Your task to perform on an android device: Go to privacy settings Image 0: 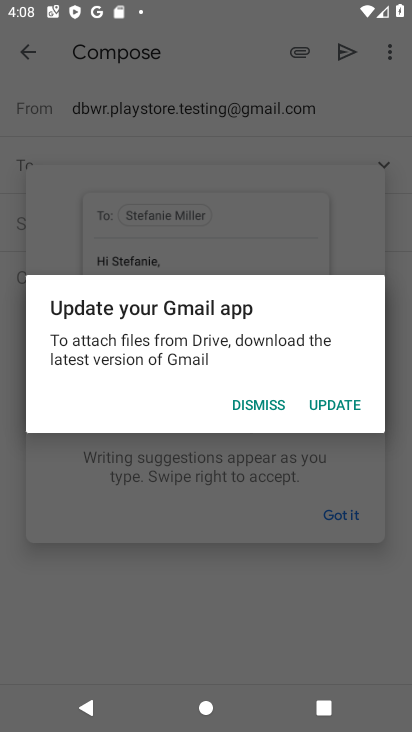
Step 0: press back button
Your task to perform on an android device: Go to privacy settings Image 1: 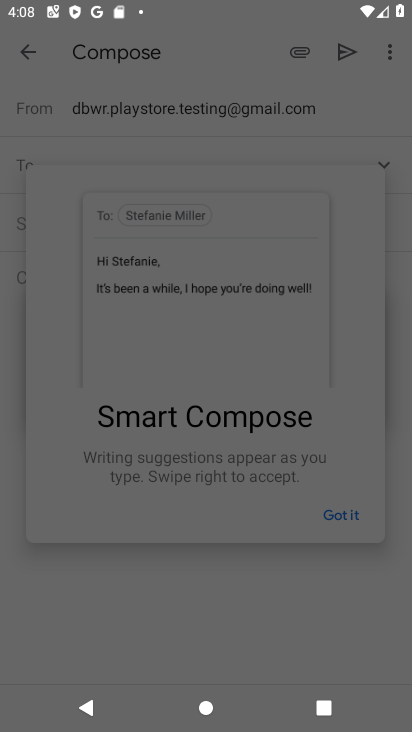
Step 1: press home button
Your task to perform on an android device: Go to privacy settings Image 2: 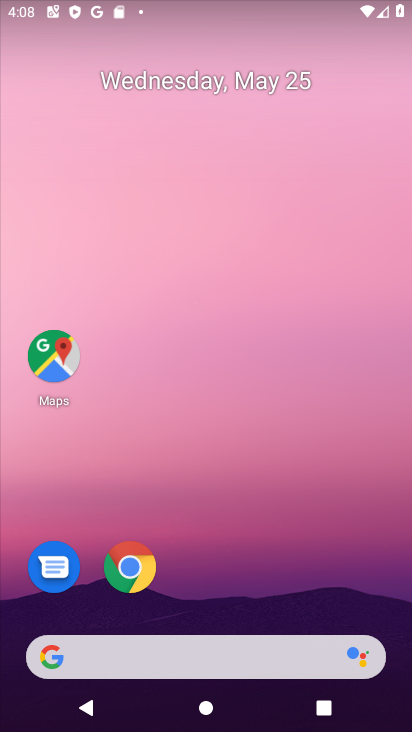
Step 2: drag from (308, 556) to (235, 14)
Your task to perform on an android device: Go to privacy settings Image 3: 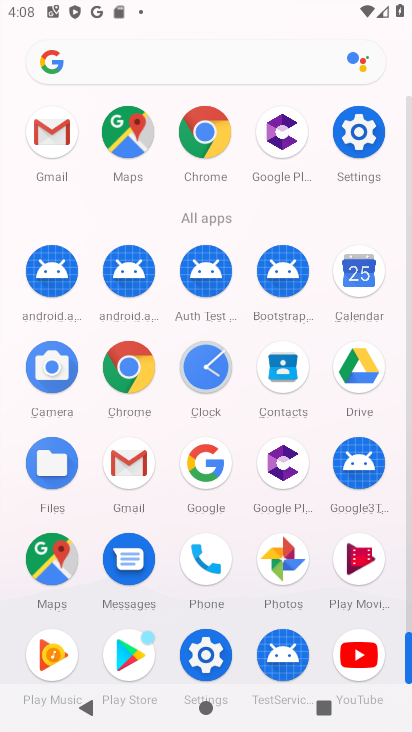
Step 3: click (127, 366)
Your task to perform on an android device: Go to privacy settings Image 4: 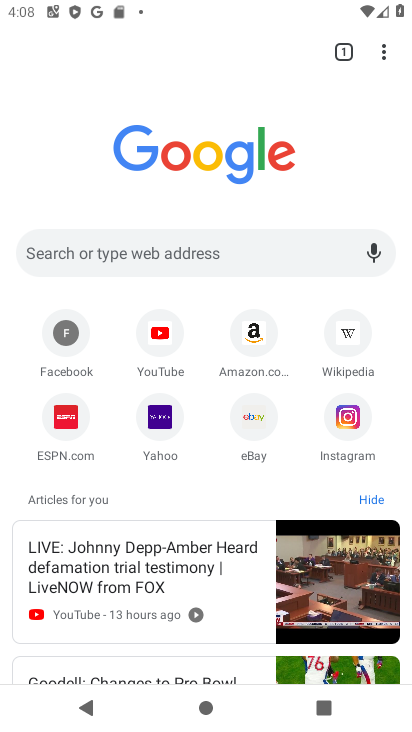
Step 4: drag from (381, 52) to (205, 437)
Your task to perform on an android device: Go to privacy settings Image 5: 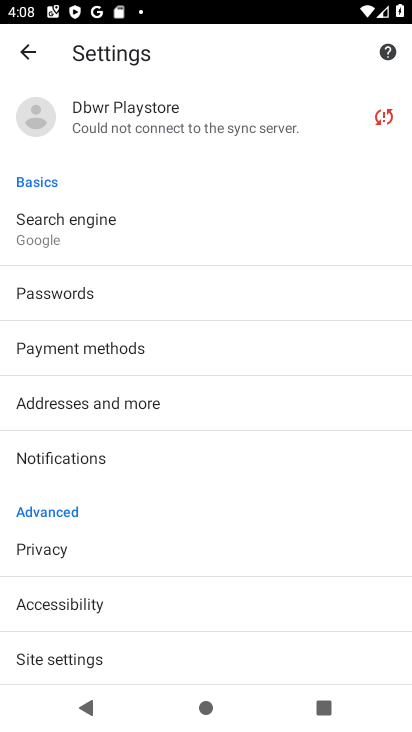
Step 5: click (87, 547)
Your task to perform on an android device: Go to privacy settings Image 6: 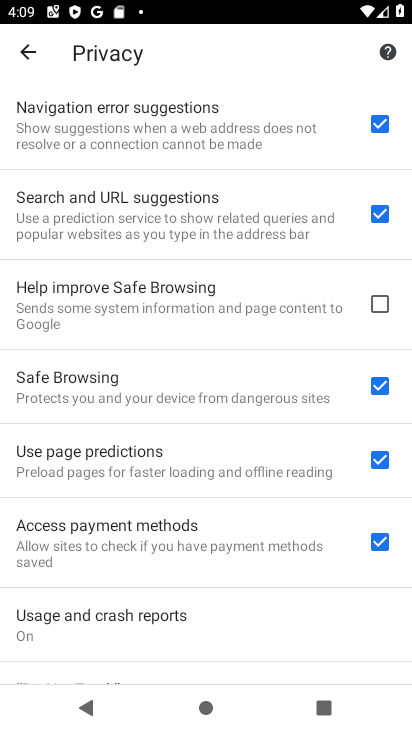
Step 6: task complete